Your task to perform on an android device: star an email in the gmail app Image 0: 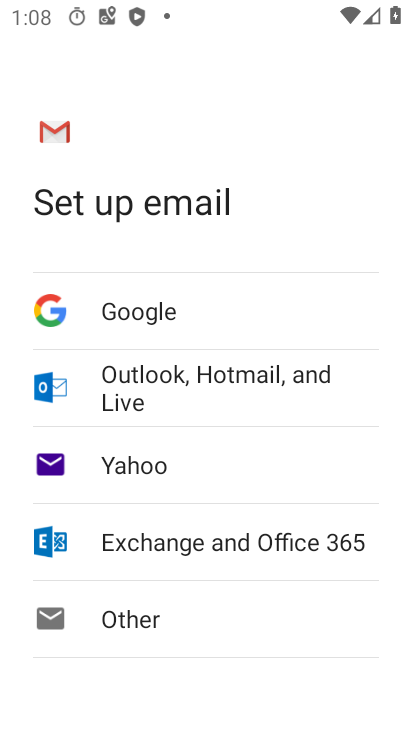
Step 0: press home button
Your task to perform on an android device: star an email in the gmail app Image 1: 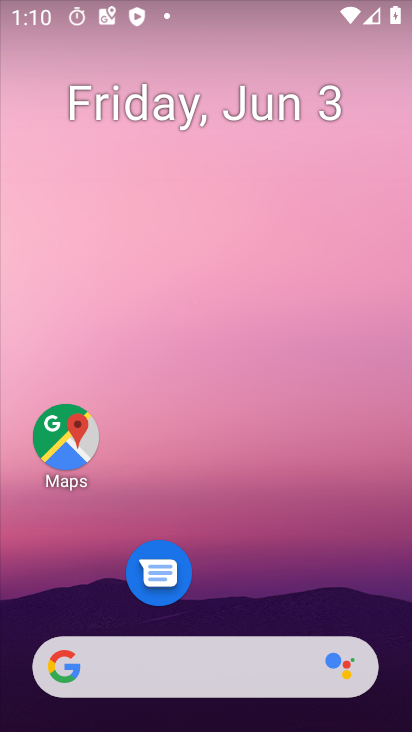
Step 1: task complete